Your task to perform on an android device: Go to CNN.com Image 0: 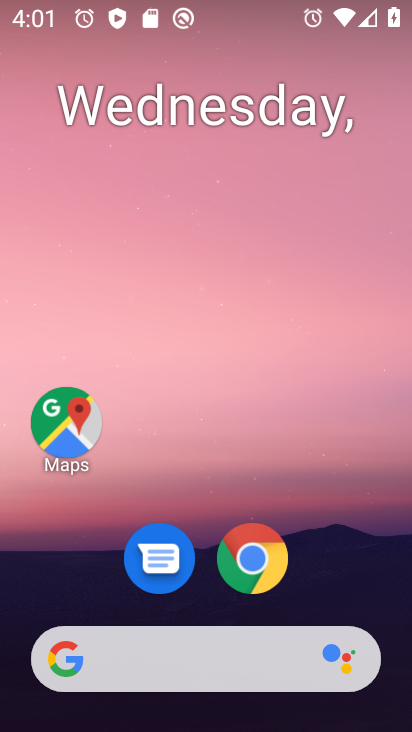
Step 0: click (243, 576)
Your task to perform on an android device: Go to CNN.com Image 1: 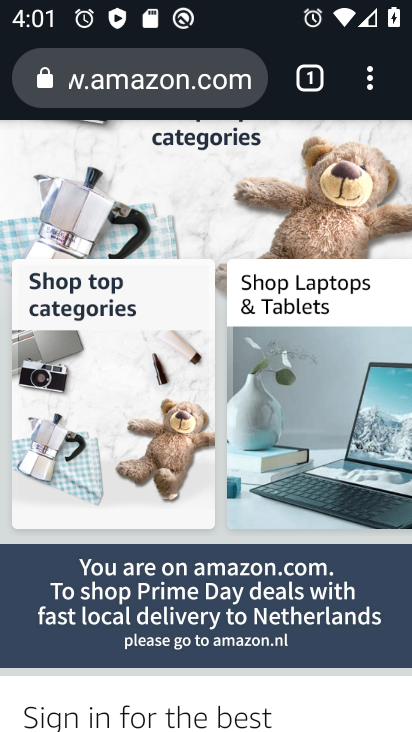
Step 1: click (324, 79)
Your task to perform on an android device: Go to CNN.com Image 2: 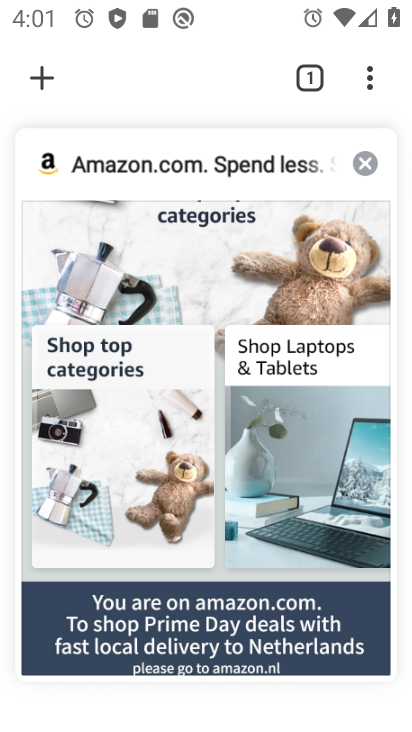
Step 2: click (370, 163)
Your task to perform on an android device: Go to CNN.com Image 3: 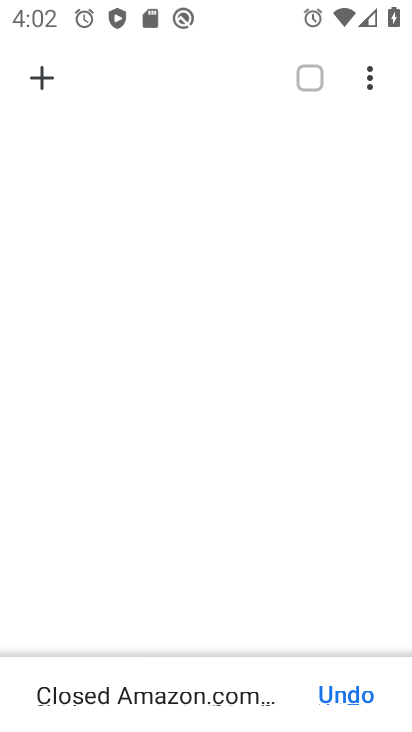
Step 3: click (39, 74)
Your task to perform on an android device: Go to CNN.com Image 4: 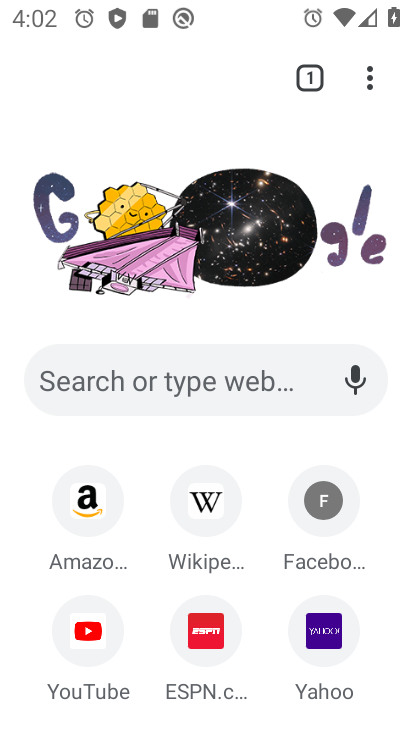
Step 4: type "CNN.com"
Your task to perform on an android device: Go to CNN.com Image 5: 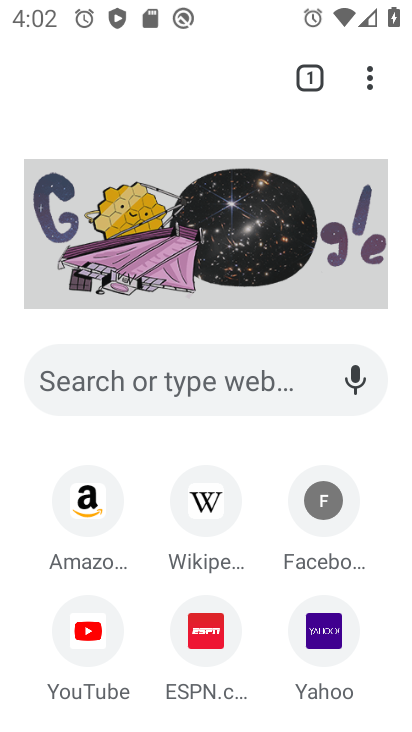
Step 5: drag from (221, 127) to (282, 506)
Your task to perform on an android device: Go to CNN.com Image 6: 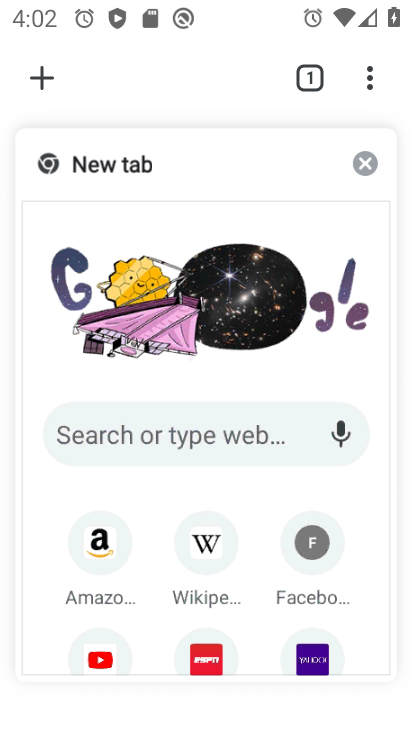
Step 6: click (40, 80)
Your task to perform on an android device: Go to CNN.com Image 7: 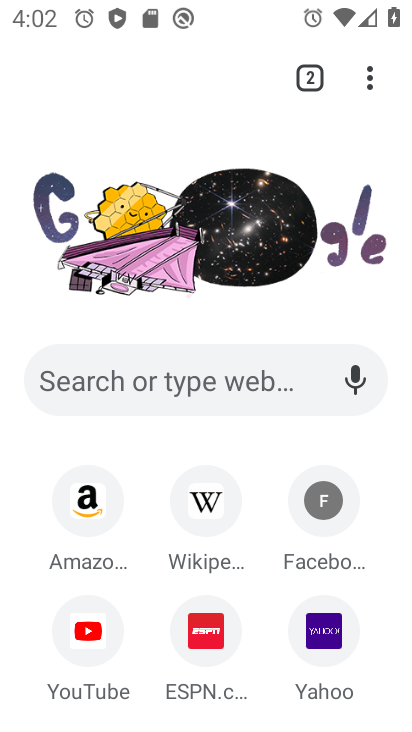
Step 7: click (153, 383)
Your task to perform on an android device: Go to CNN.com Image 8: 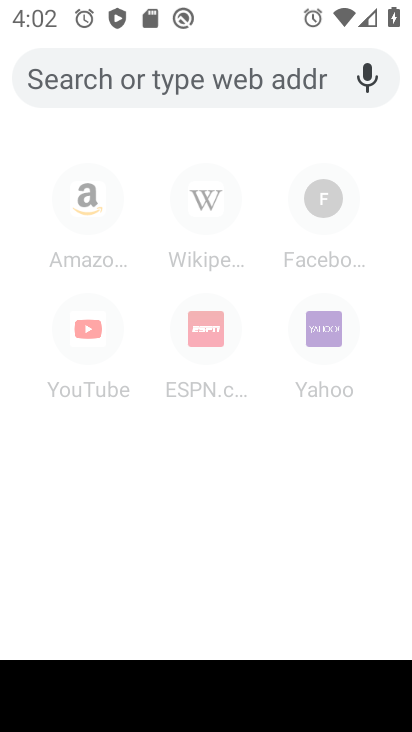
Step 8: type "CNN.com"
Your task to perform on an android device: Go to CNN.com Image 9: 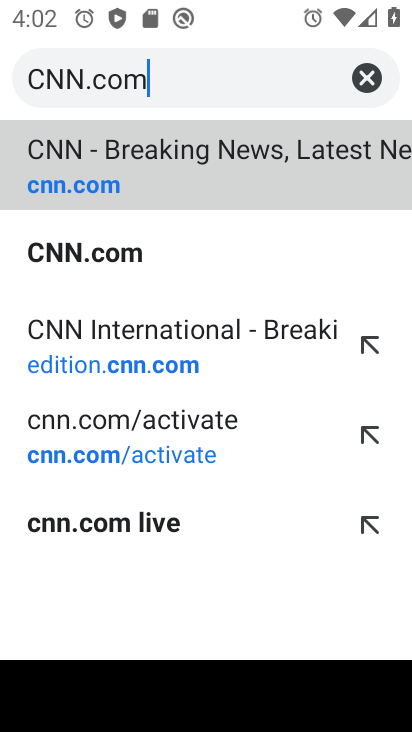
Step 9: click (89, 173)
Your task to perform on an android device: Go to CNN.com Image 10: 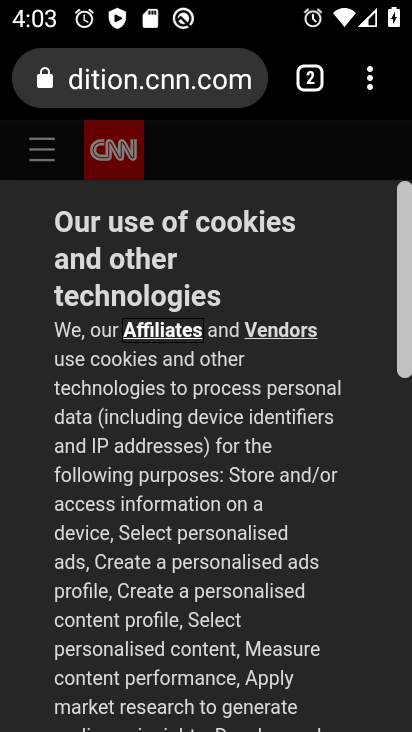
Step 10: task complete